Your task to perform on an android device: see creations saved in the google photos Image 0: 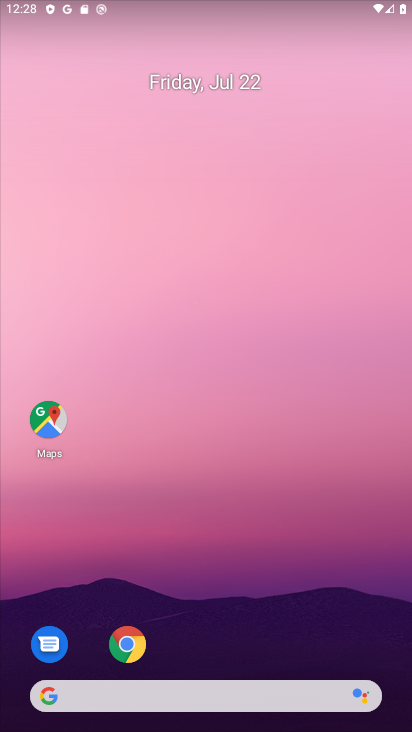
Step 0: drag from (209, 709) to (173, 120)
Your task to perform on an android device: see creations saved in the google photos Image 1: 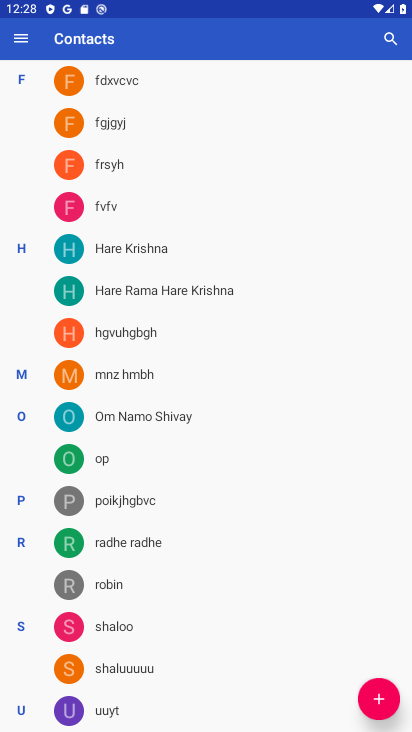
Step 1: press home button
Your task to perform on an android device: see creations saved in the google photos Image 2: 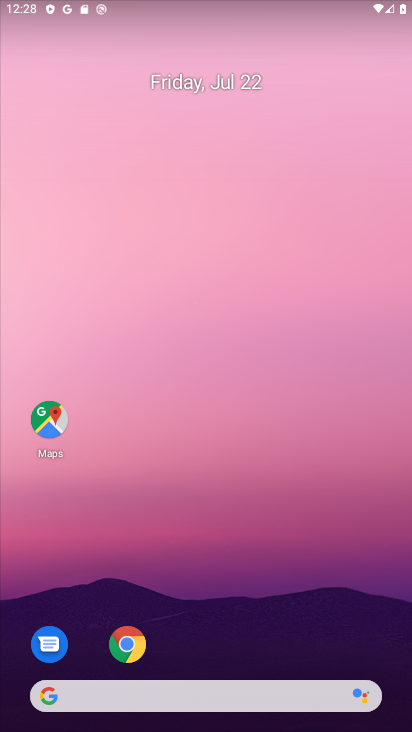
Step 2: drag from (252, 402) to (298, 35)
Your task to perform on an android device: see creations saved in the google photos Image 3: 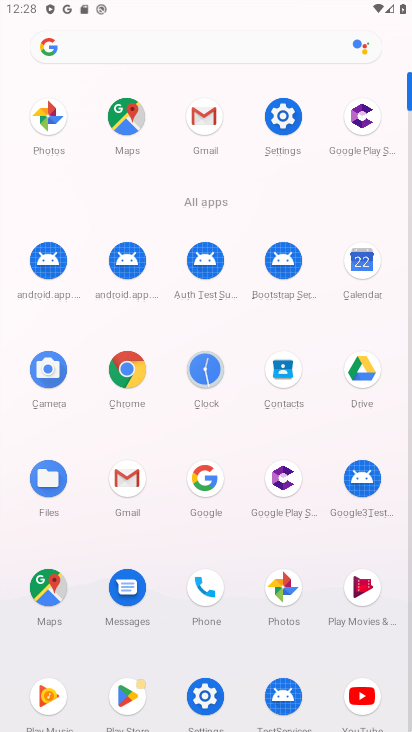
Step 3: click (53, 114)
Your task to perform on an android device: see creations saved in the google photos Image 4: 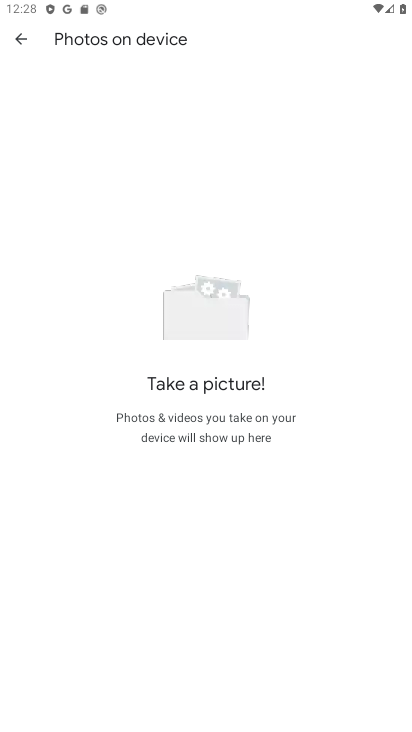
Step 4: click (19, 37)
Your task to perform on an android device: see creations saved in the google photos Image 5: 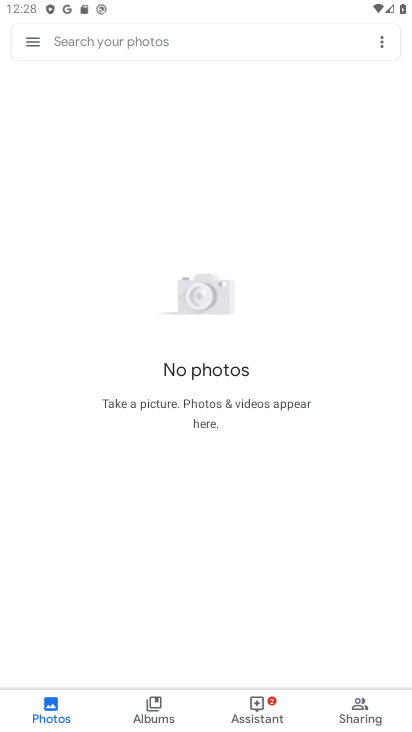
Step 5: click (280, 33)
Your task to perform on an android device: see creations saved in the google photos Image 6: 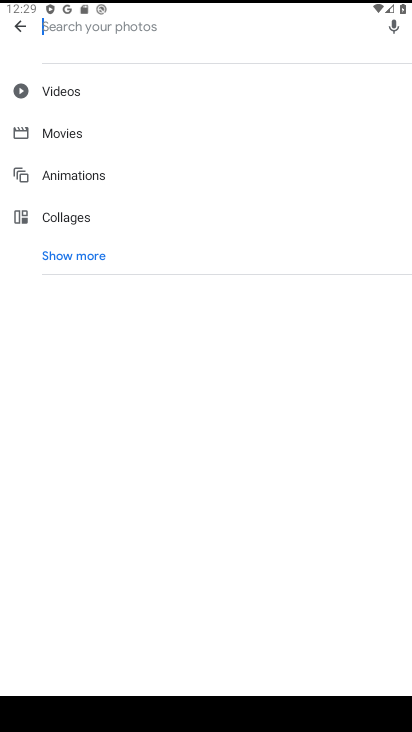
Step 6: click (90, 255)
Your task to perform on an android device: see creations saved in the google photos Image 7: 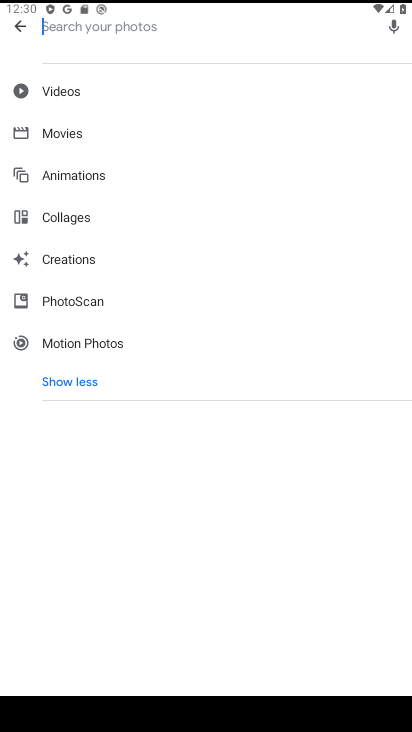
Step 7: click (72, 261)
Your task to perform on an android device: see creations saved in the google photos Image 8: 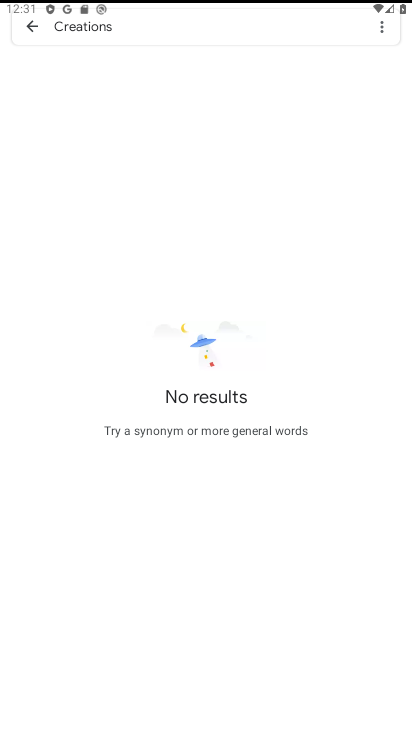
Step 8: task complete